Your task to perform on an android device: What's on my calendar today? Image 0: 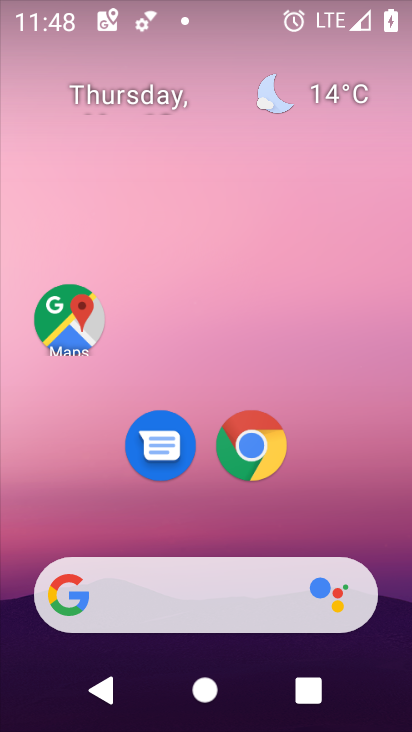
Step 0: drag from (271, 526) to (291, 301)
Your task to perform on an android device: What's on my calendar today? Image 1: 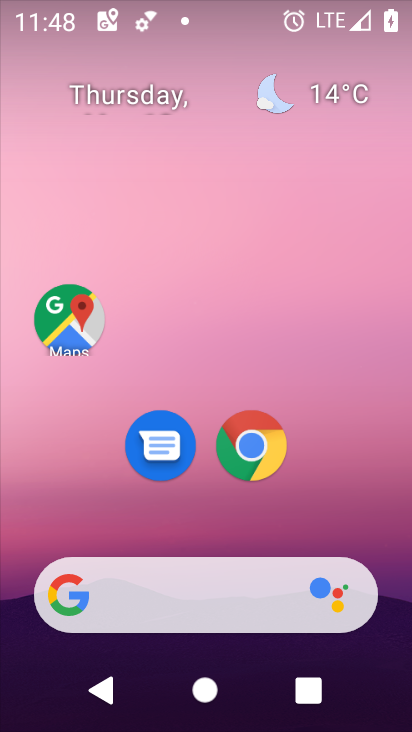
Step 1: drag from (225, 507) to (264, 203)
Your task to perform on an android device: What's on my calendar today? Image 2: 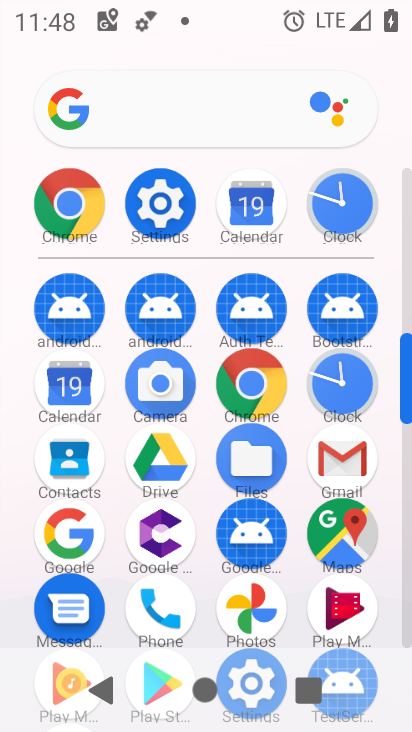
Step 2: click (91, 399)
Your task to perform on an android device: What's on my calendar today? Image 3: 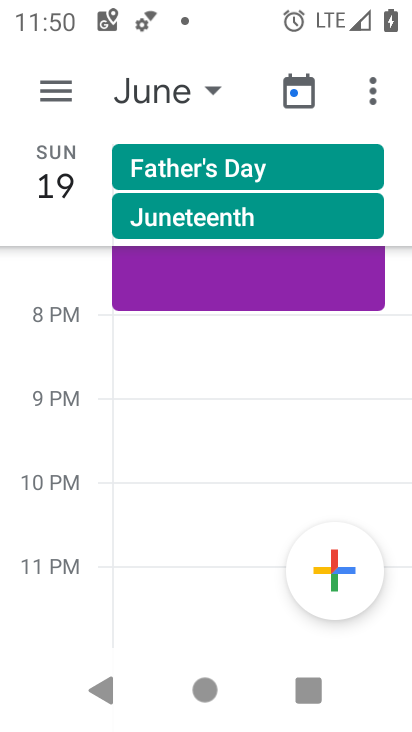
Step 3: click (200, 81)
Your task to perform on an android device: What's on my calendar today? Image 4: 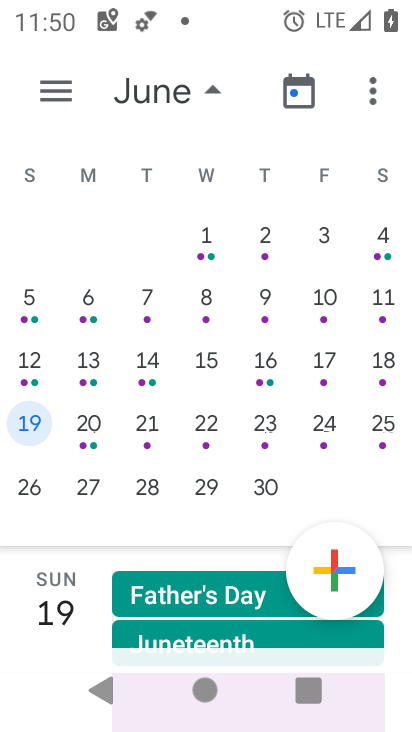
Step 4: drag from (92, 273) to (407, 299)
Your task to perform on an android device: What's on my calendar today? Image 5: 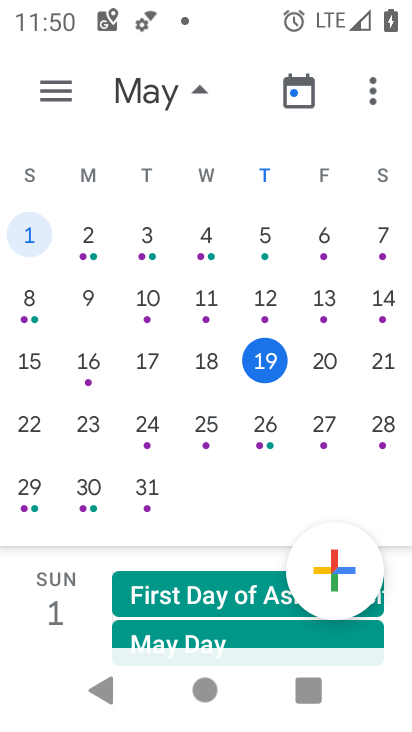
Step 5: click (259, 365)
Your task to perform on an android device: What's on my calendar today? Image 6: 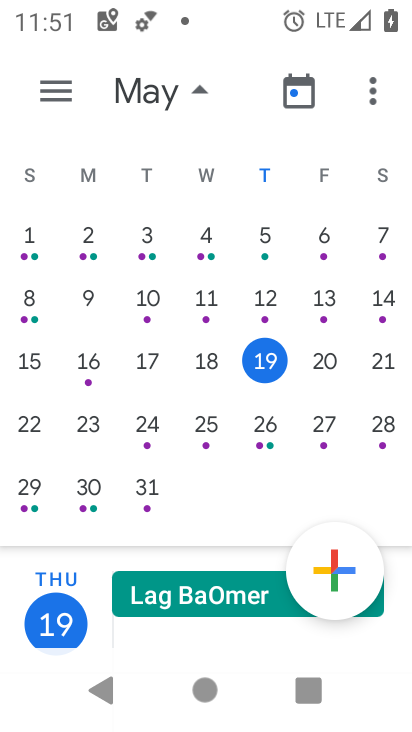
Step 6: click (192, 78)
Your task to perform on an android device: What's on my calendar today? Image 7: 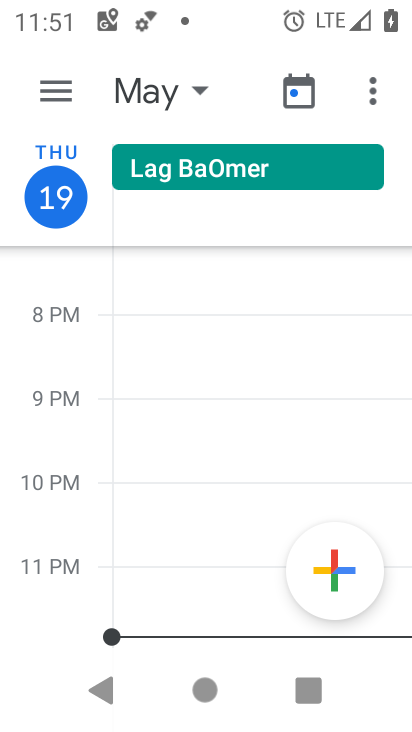
Step 7: task complete